Your task to perform on an android device: Show me popular videos on Youtube Image 0: 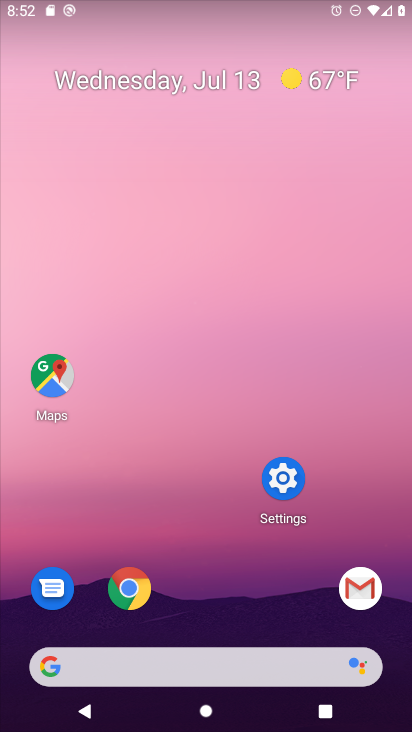
Step 0: drag from (283, 610) to (345, 230)
Your task to perform on an android device: Show me popular videos on Youtube Image 1: 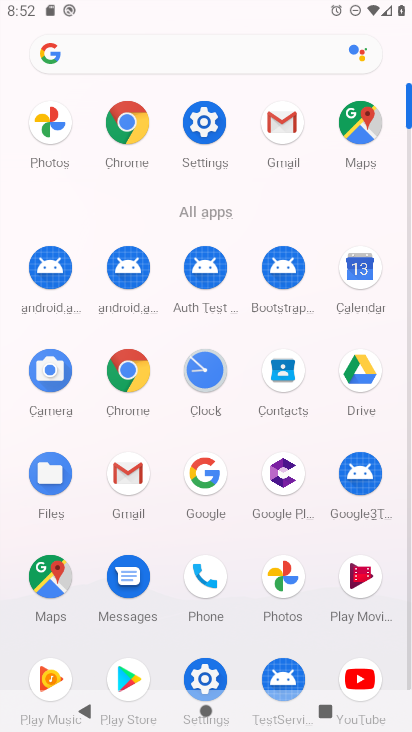
Step 1: click (356, 666)
Your task to perform on an android device: Show me popular videos on Youtube Image 2: 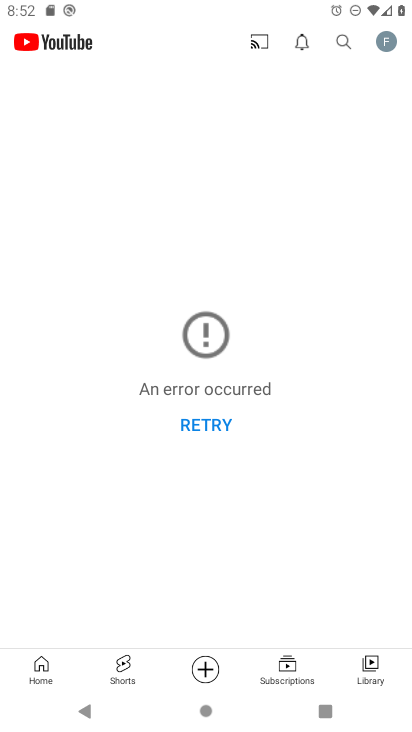
Step 2: click (340, 50)
Your task to perform on an android device: Show me popular videos on Youtube Image 3: 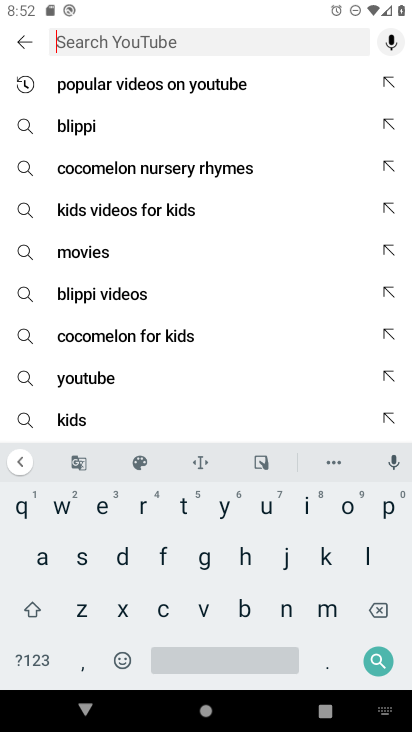
Step 3: click (393, 506)
Your task to perform on an android device: Show me popular videos on Youtube Image 4: 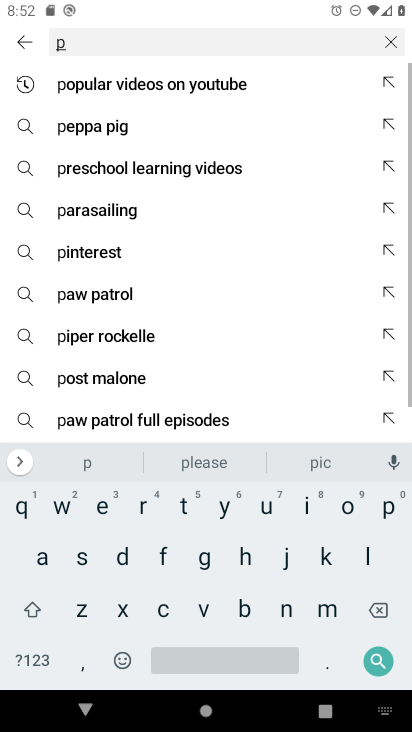
Step 4: click (346, 510)
Your task to perform on an android device: Show me popular videos on Youtube Image 5: 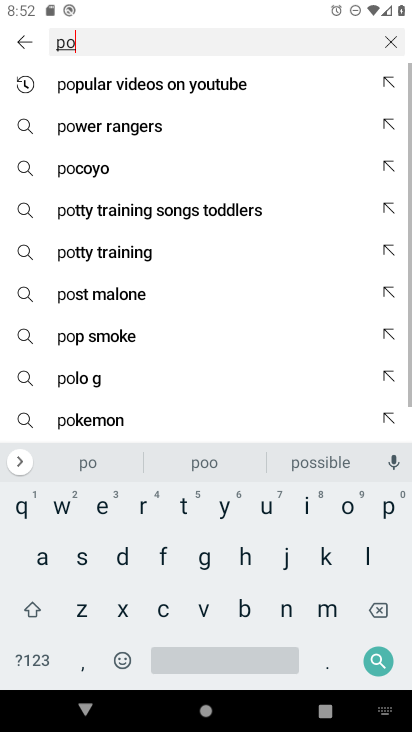
Step 5: click (391, 508)
Your task to perform on an android device: Show me popular videos on Youtube Image 6: 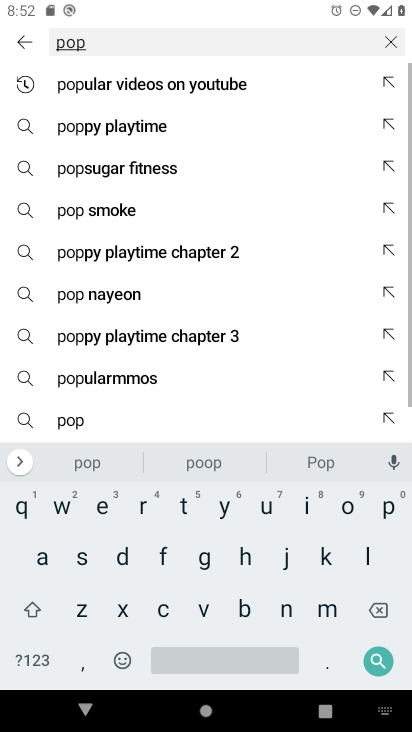
Step 6: click (274, 504)
Your task to perform on an android device: Show me popular videos on Youtube Image 7: 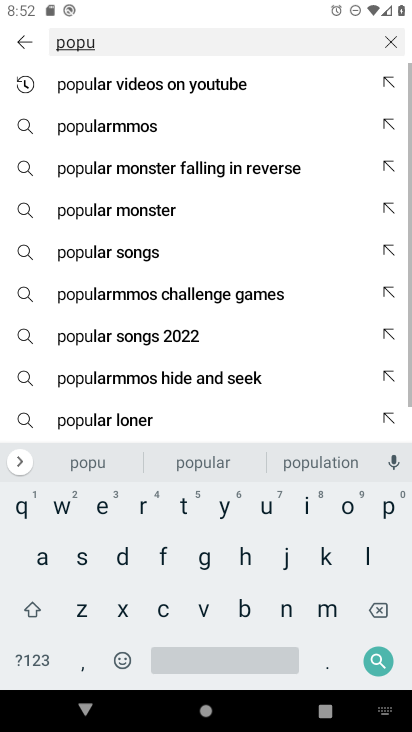
Step 7: click (210, 469)
Your task to perform on an android device: Show me popular videos on Youtube Image 8: 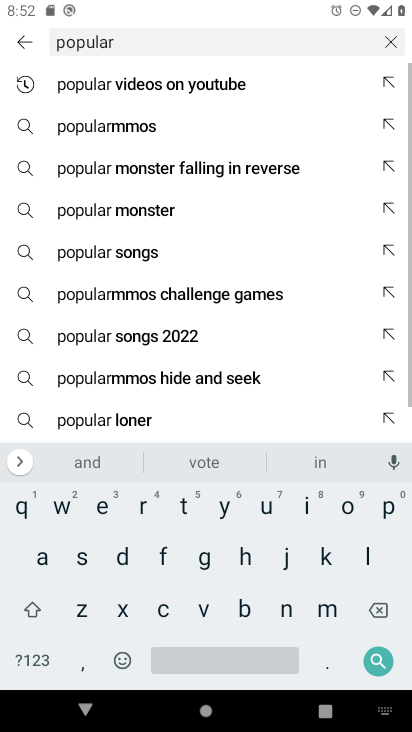
Step 8: click (197, 614)
Your task to perform on an android device: Show me popular videos on Youtube Image 9: 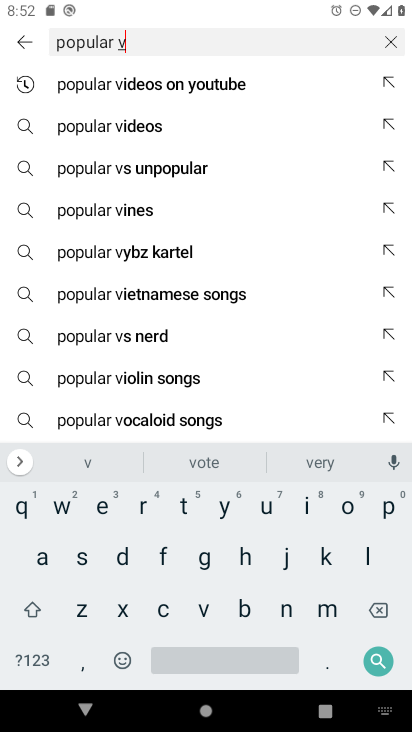
Step 9: click (140, 127)
Your task to perform on an android device: Show me popular videos on Youtube Image 10: 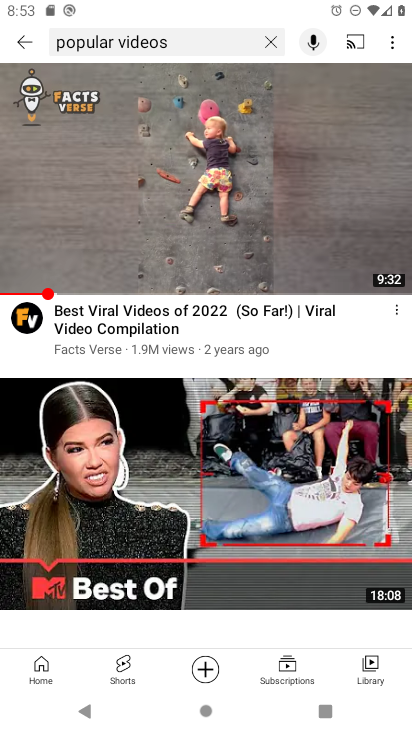
Step 10: task complete